Your task to perform on an android device: Go to Maps Image 0: 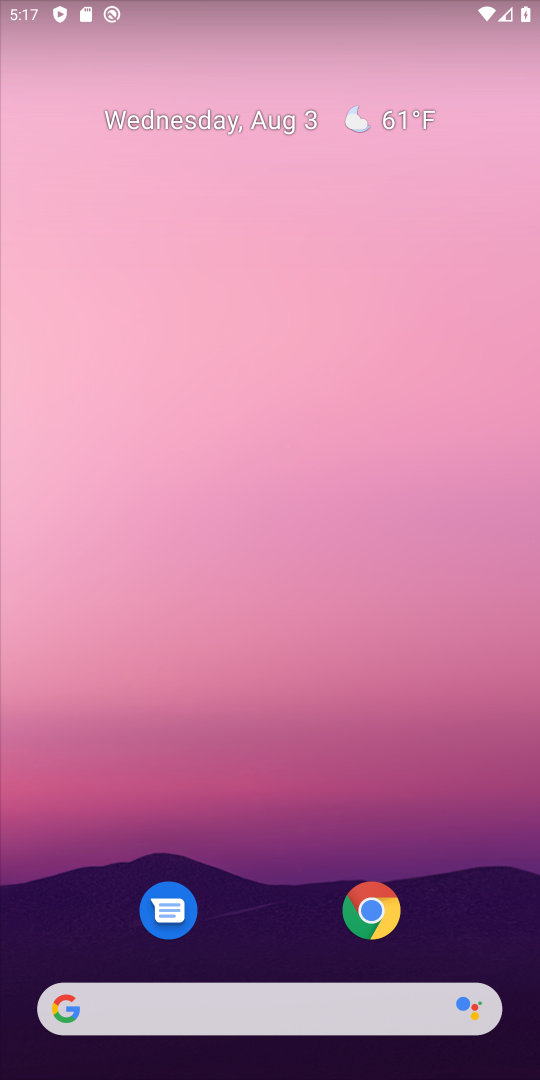
Step 0: drag from (281, 913) to (360, 84)
Your task to perform on an android device: Go to Maps Image 1: 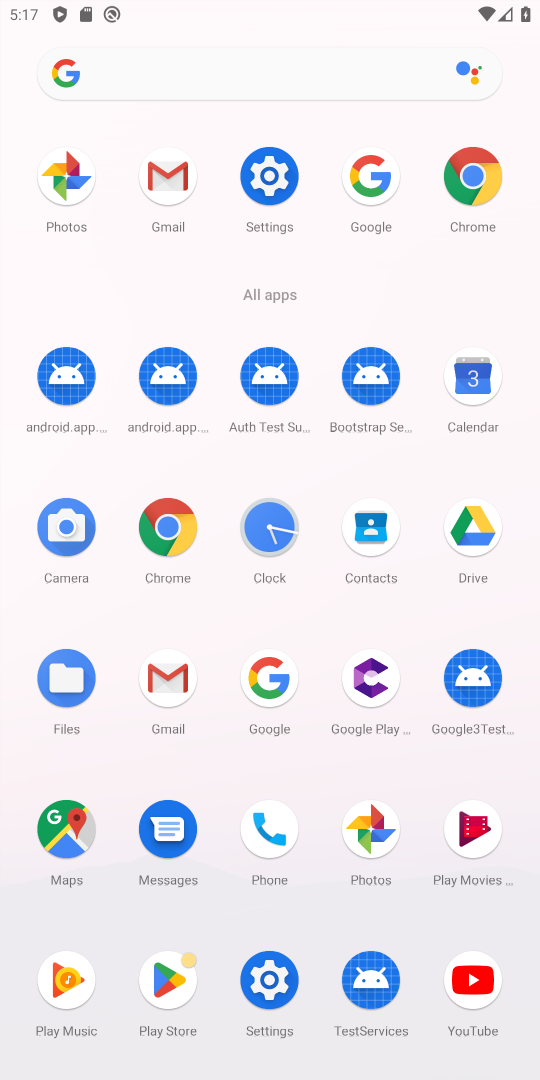
Step 1: click (58, 830)
Your task to perform on an android device: Go to Maps Image 2: 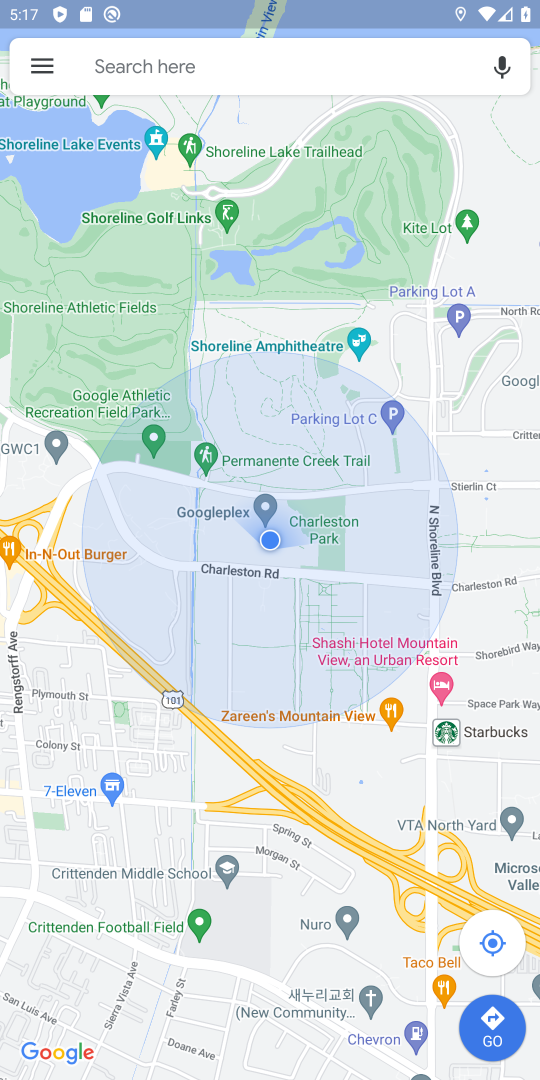
Step 2: task complete